Your task to perform on an android device: Do I have any events today? Image 0: 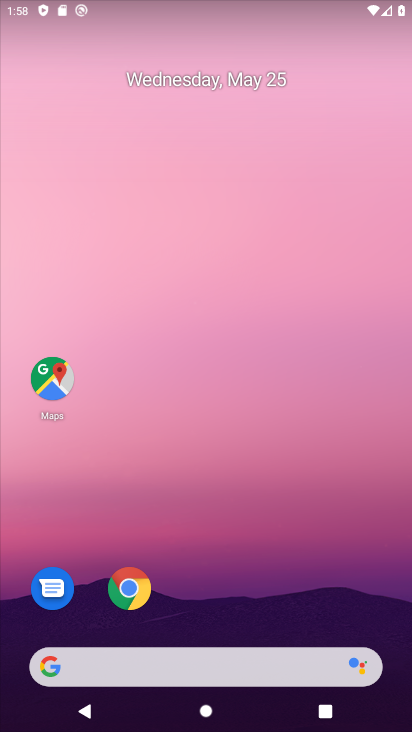
Step 0: drag from (256, 545) to (238, 57)
Your task to perform on an android device: Do I have any events today? Image 1: 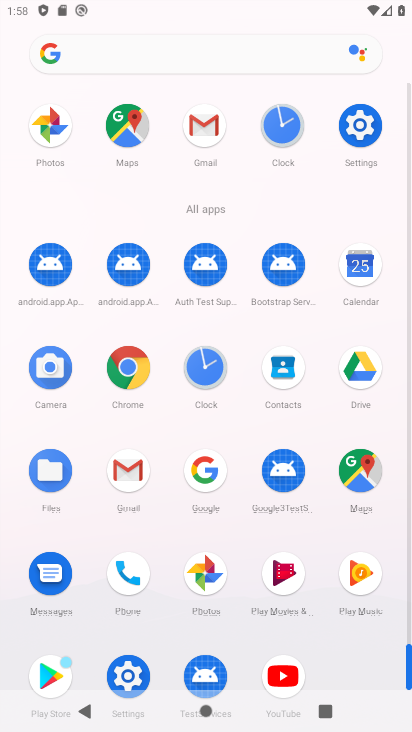
Step 1: drag from (14, 512) to (19, 211)
Your task to perform on an android device: Do I have any events today? Image 2: 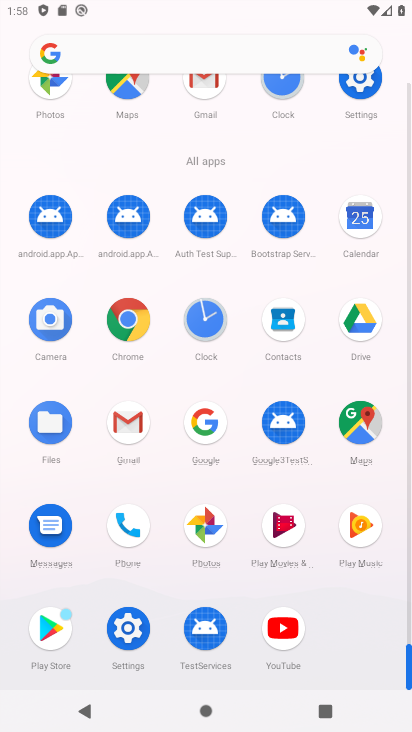
Step 2: click (128, 319)
Your task to perform on an android device: Do I have any events today? Image 3: 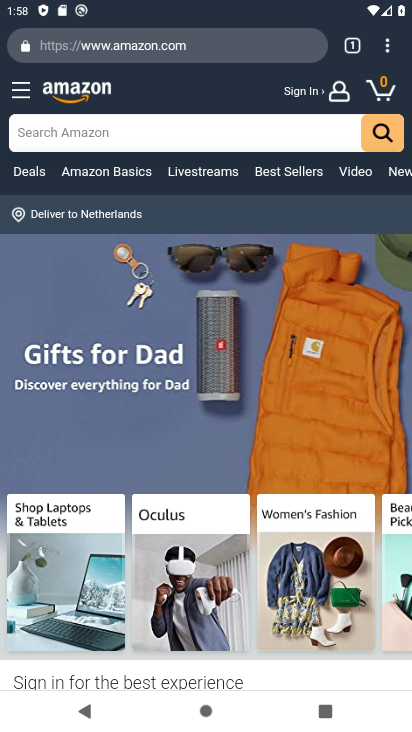
Step 3: press back button
Your task to perform on an android device: Do I have any events today? Image 4: 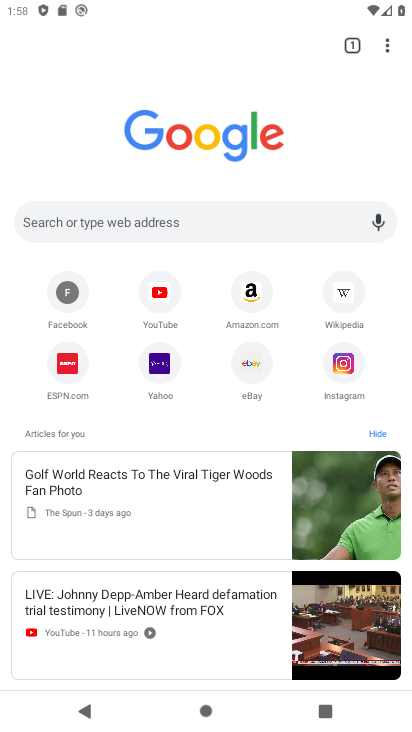
Step 4: press home button
Your task to perform on an android device: Do I have any events today? Image 5: 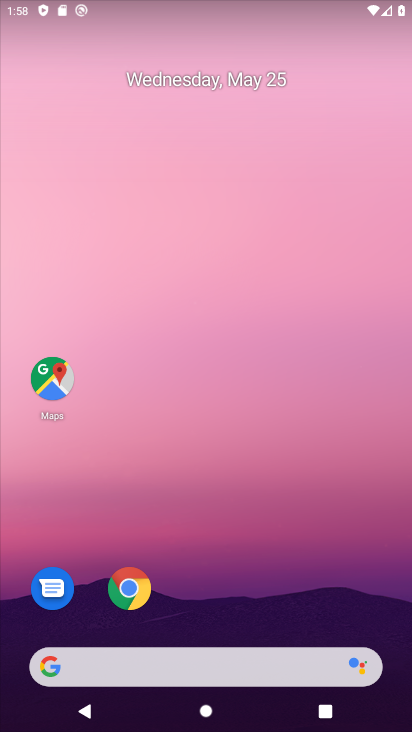
Step 5: drag from (225, 553) to (243, 5)
Your task to perform on an android device: Do I have any events today? Image 6: 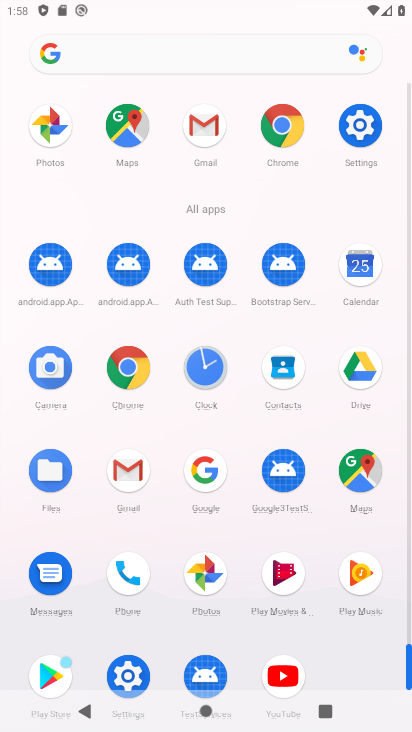
Step 6: click (364, 261)
Your task to perform on an android device: Do I have any events today? Image 7: 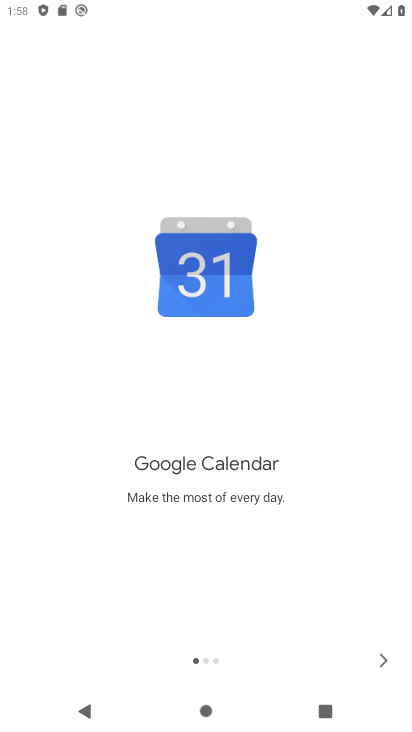
Step 7: click (380, 655)
Your task to perform on an android device: Do I have any events today? Image 8: 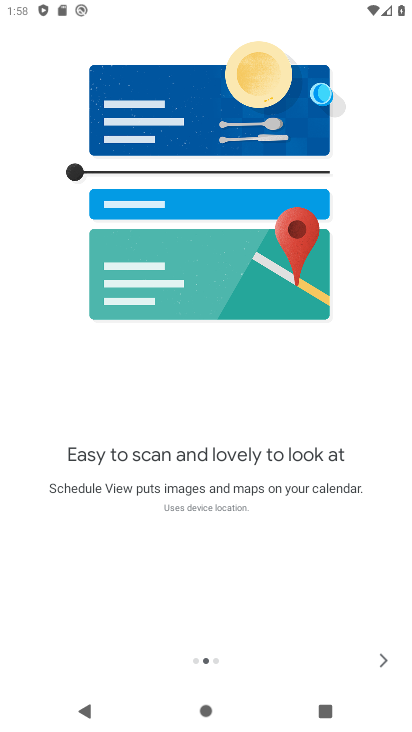
Step 8: click (383, 653)
Your task to perform on an android device: Do I have any events today? Image 9: 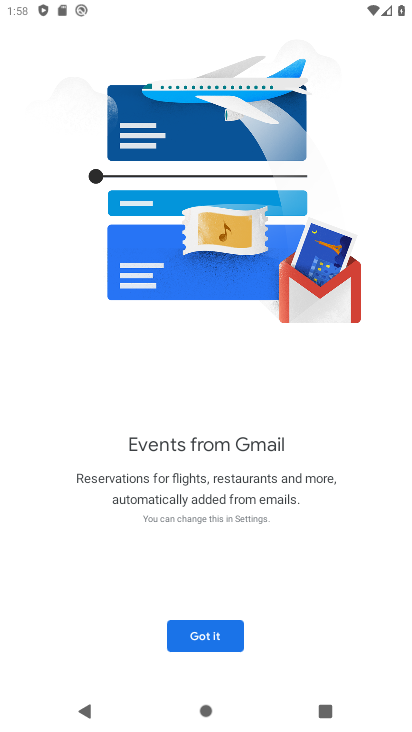
Step 9: click (184, 636)
Your task to perform on an android device: Do I have any events today? Image 10: 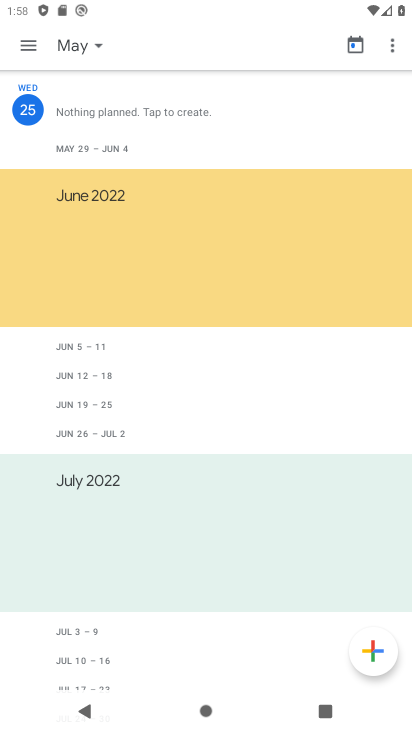
Step 10: click (41, 43)
Your task to perform on an android device: Do I have any events today? Image 11: 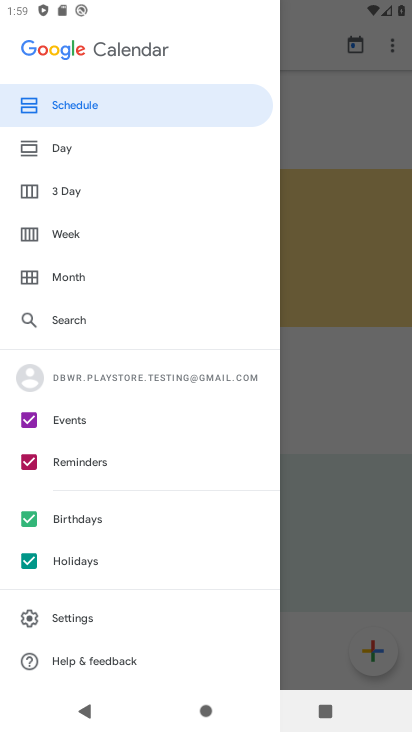
Step 11: click (80, 149)
Your task to perform on an android device: Do I have any events today? Image 12: 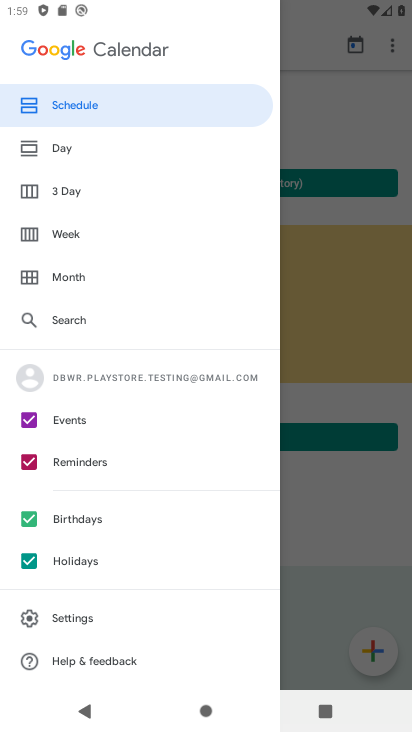
Step 12: click (64, 148)
Your task to perform on an android device: Do I have any events today? Image 13: 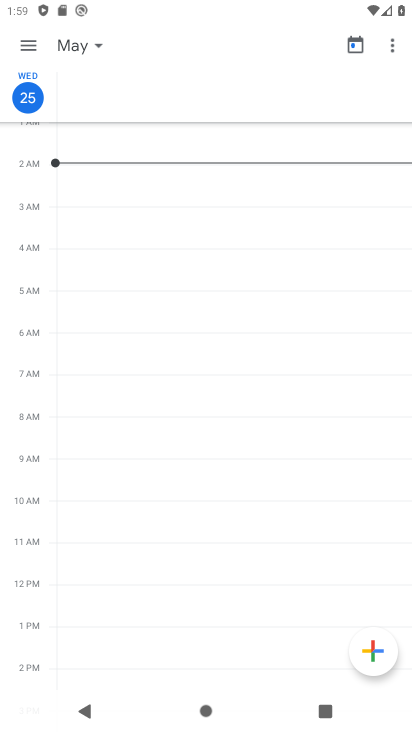
Step 13: task complete